Your task to perform on an android device: turn off location history Image 0: 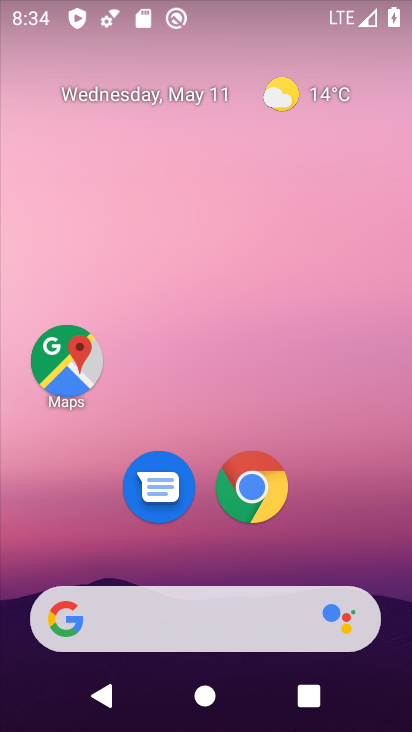
Step 0: drag from (333, 542) to (359, 203)
Your task to perform on an android device: turn off location history Image 1: 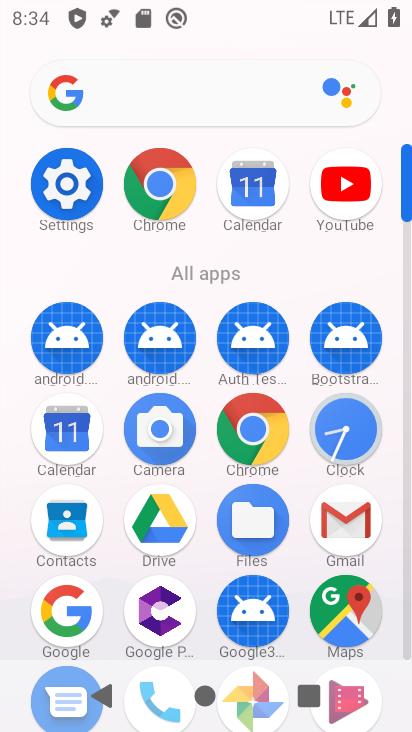
Step 1: click (77, 216)
Your task to perform on an android device: turn off location history Image 2: 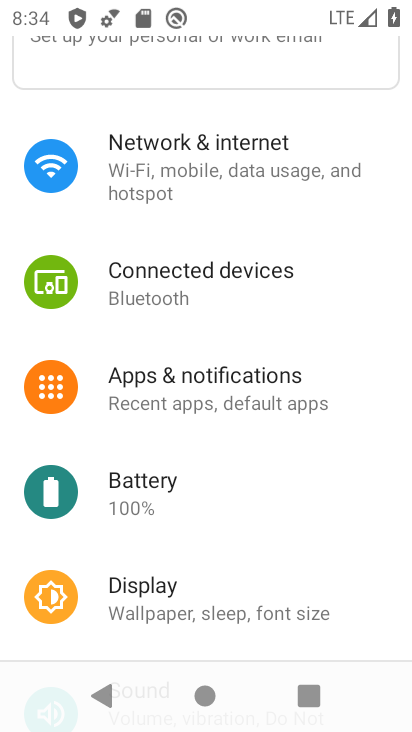
Step 2: drag from (205, 560) to (215, 272)
Your task to perform on an android device: turn off location history Image 3: 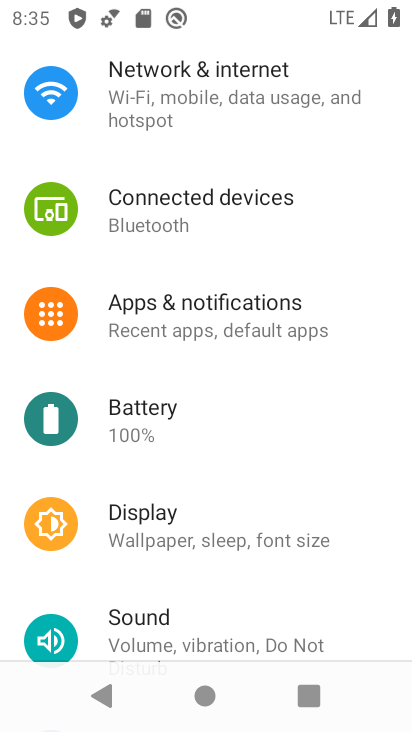
Step 3: drag from (183, 608) to (207, 320)
Your task to perform on an android device: turn off location history Image 4: 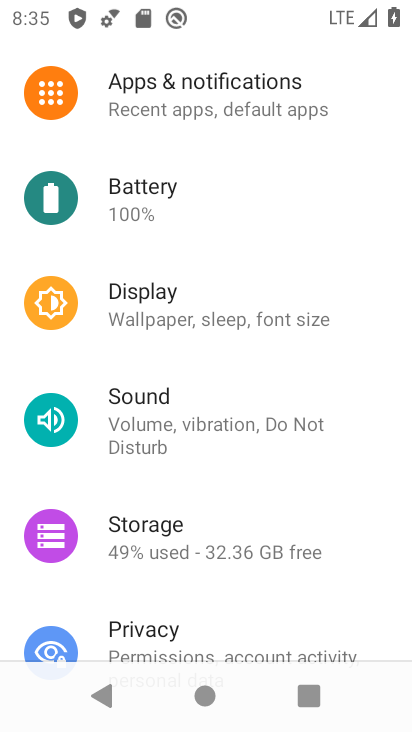
Step 4: drag from (206, 580) to (208, 344)
Your task to perform on an android device: turn off location history Image 5: 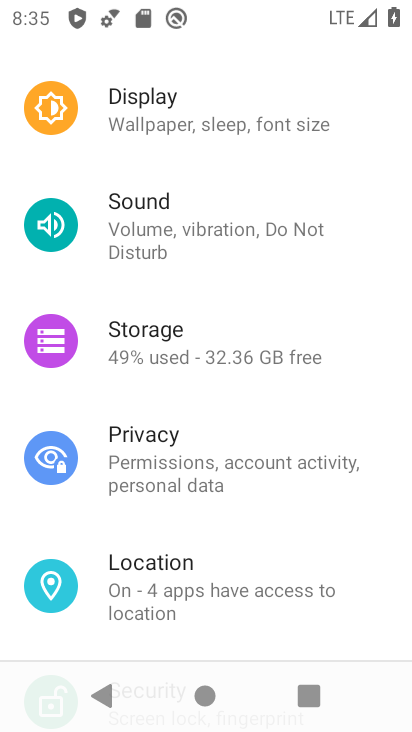
Step 5: click (170, 600)
Your task to perform on an android device: turn off location history Image 6: 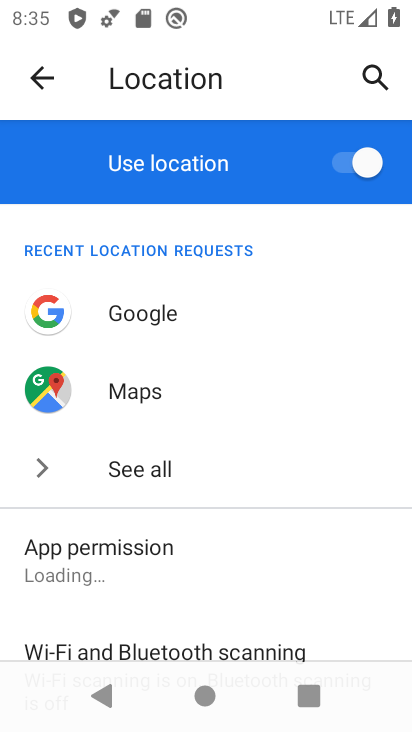
Step 6: drag from (180, 580) to (190, 463)
Your task to perform on an android device: turn off location history Image 7: 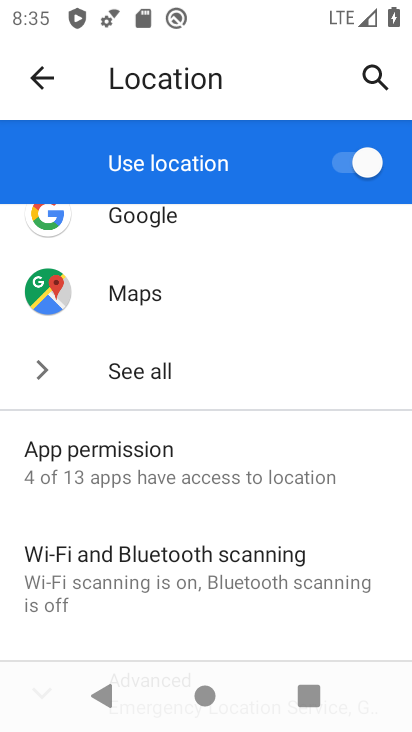
Step 7: drag from (182, 646) to (241, 434)
Your task to perform on an android device: turn off location history Image 8: 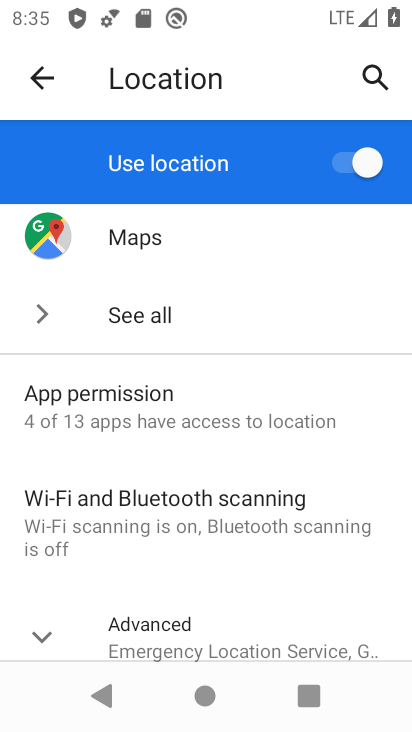
Step 8: click (158, 644)
Your task to perform on an android device: turn off location history Image 9: 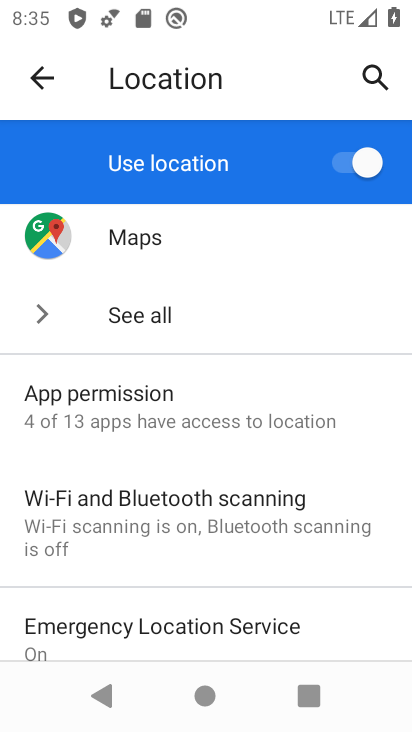
Step 9: drag from (232, 488) to (250, 392)
Your task to perform on an android device: turn off location history Image 10: 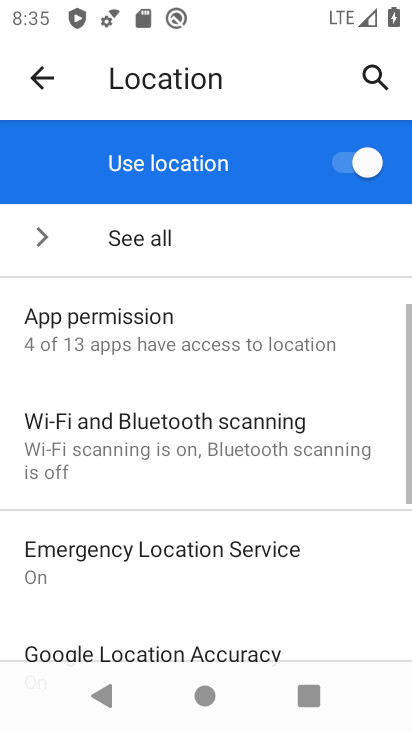
Step 10: drag from (239, 637) to (239, 400)
Your task to perform on an android device: turn off location history Image 11: 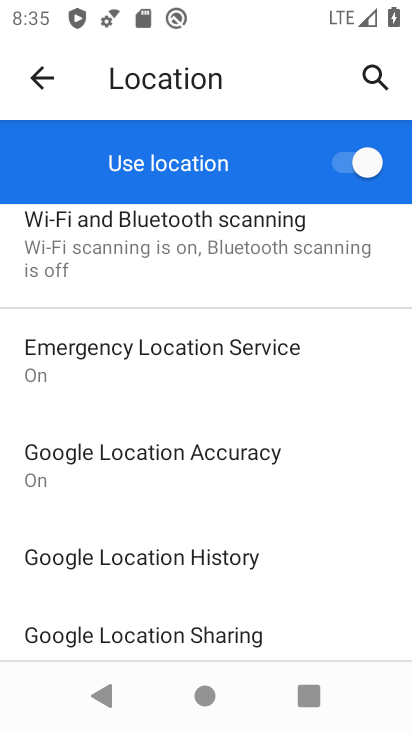
Step 11: click (215, 570)
Your task to perform on an android device: turn off location history Image 12: 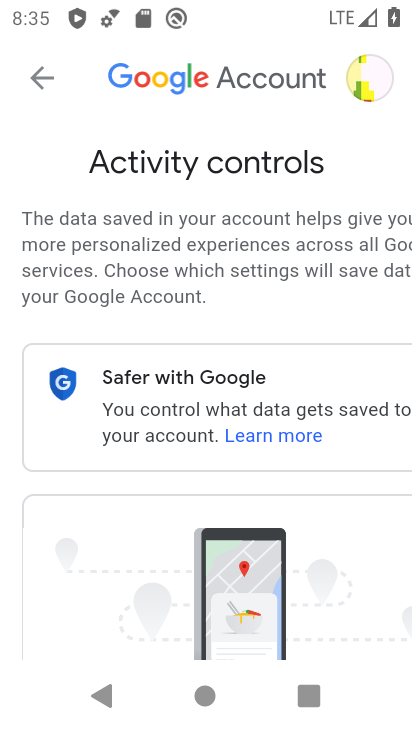
Step 12: drag from (311, 633) to (358, 523)
Your task to perform on an android device: turn off location history Image 13: 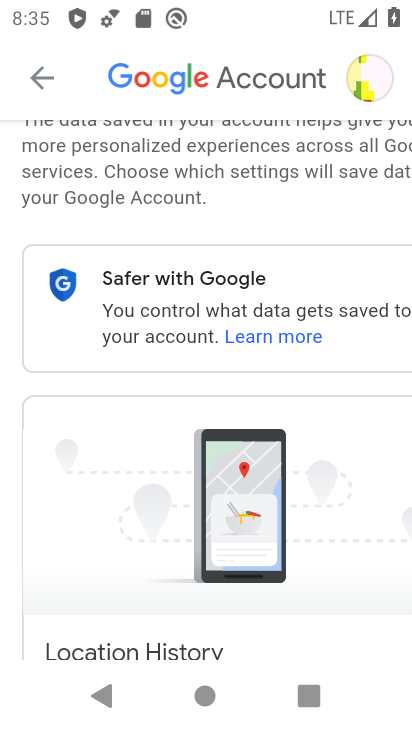
Step 13: drag from (350, 607) to (333, 363)
Your task to perform on an android device: turn off location history Image 14: 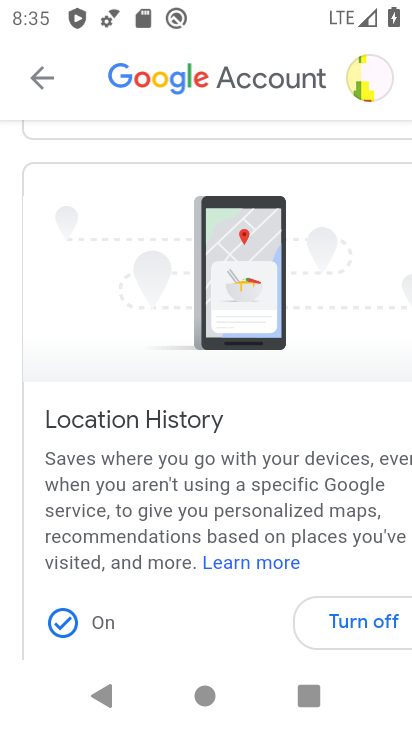
Step 14: drag from (333, 590) to (328, 339)
Your task to perform on an android device: turn off location history Image 15: 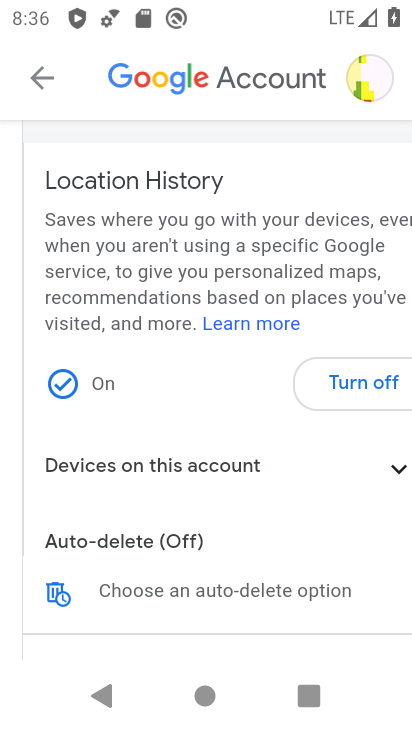
Step 15: click (356, 396)
Your task to perform on an android device: turn off location history Image 16: 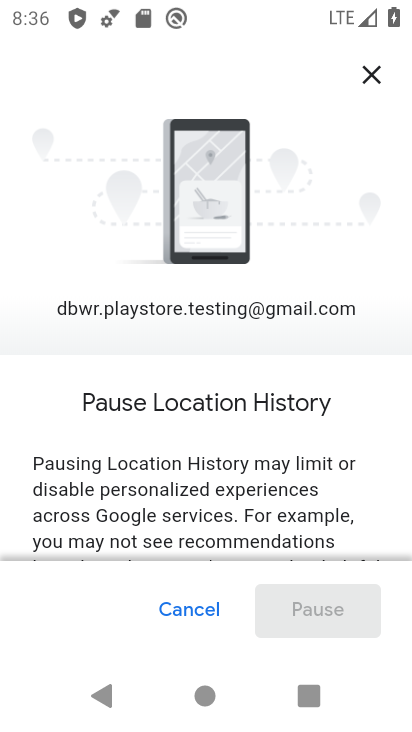
Step 16: drag from (306, 531) to (306, 380)
Your task to perform on an android device: turn off location history Image 17: 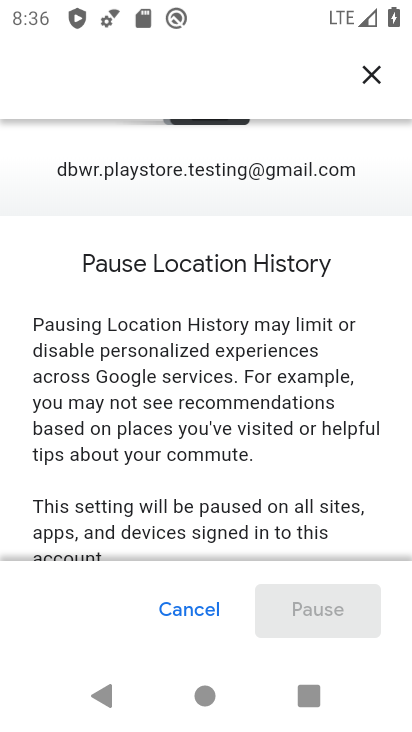
Step 17: drag from (288, 480) to (271, 253)
Your task to perform on an android device: turn off location history Image 18: 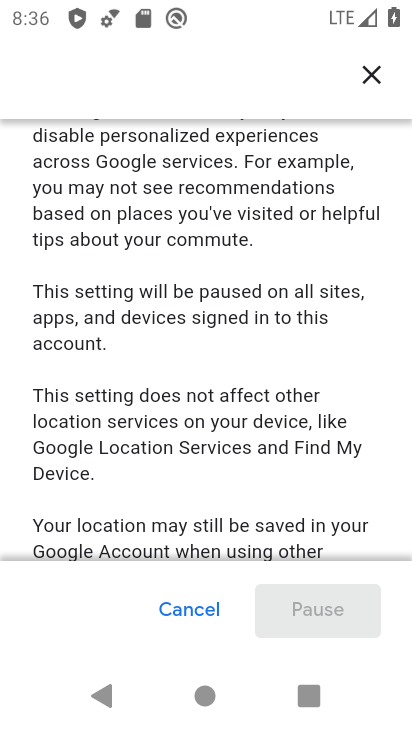
Step 18: drag from (268, 352) to (294, 212)
Your task to perform on an android device: turn off location history Image 19: 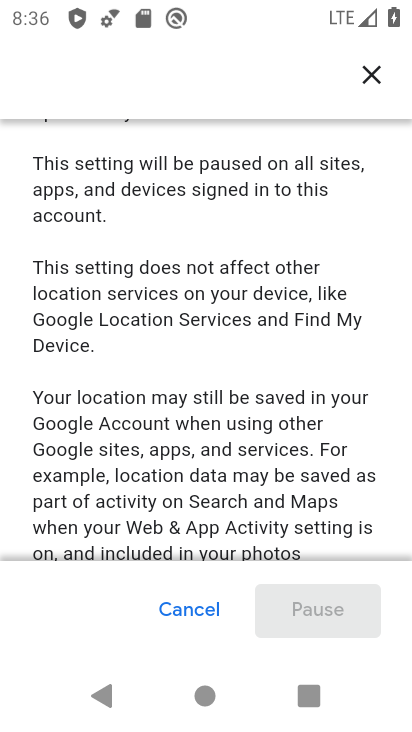
Step 19: drag from (234, 529) to (266, 177)
Your task to perform on an android device: turn off location history Image 20: 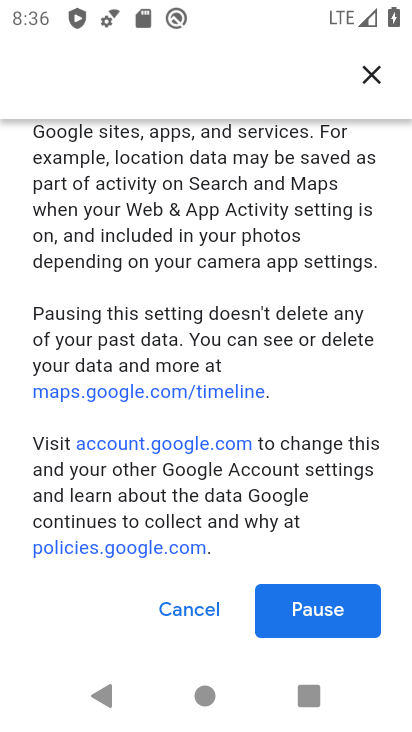
Step 20: click (298, 612)
Your task to perform on an android device: turn off location history Image 21: 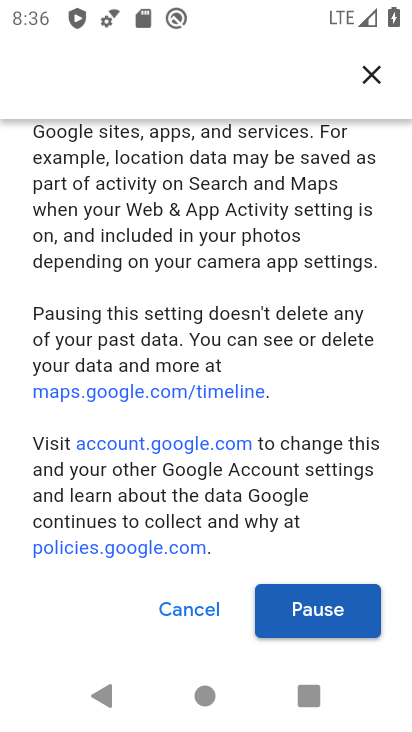
Step 21: click (279, 634)
Your task to perform on an android device: turn off location history Image 22: 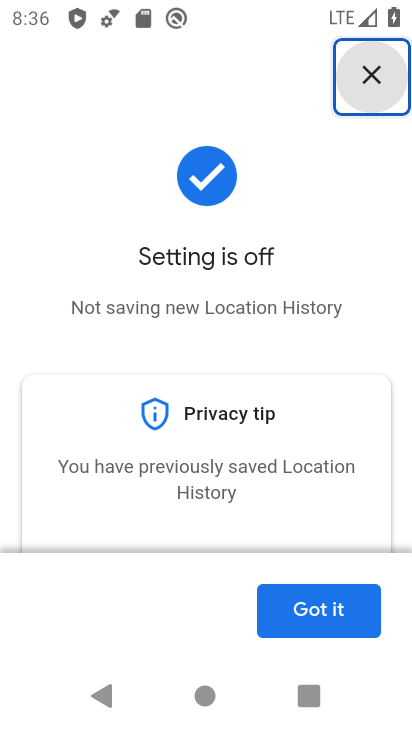
Step 22: click (311, 616)
Your task to perform on an android device: turn off location history Image 23: 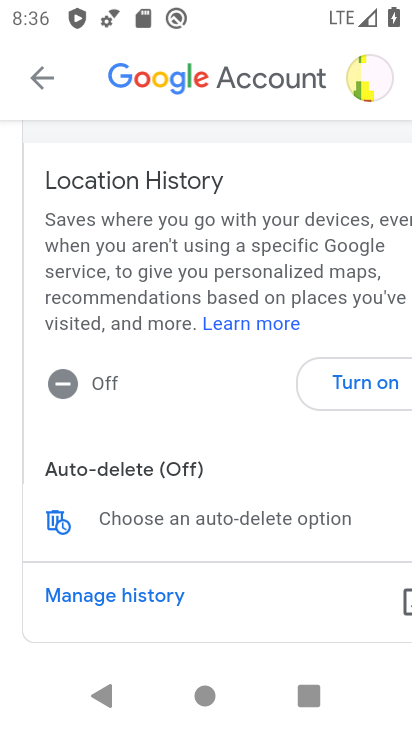
Step 23: task complete